Your task to perform on an android device: Go to Wikipedia Image 0: 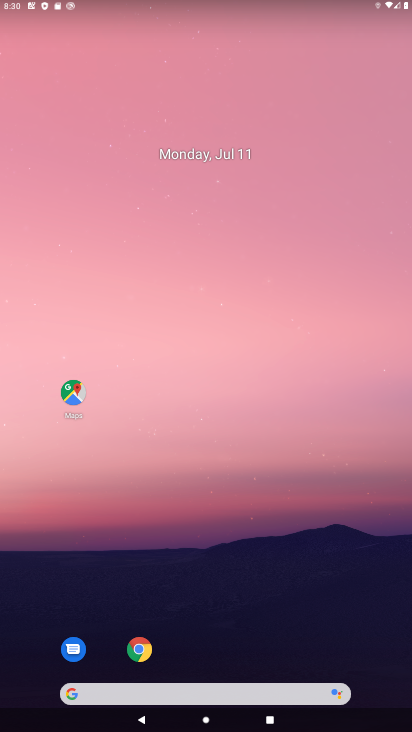
Step 0: drag from (170, 660) to (278, 154)
Your task to perform on an android device: Go to Wikipedia Image 1: 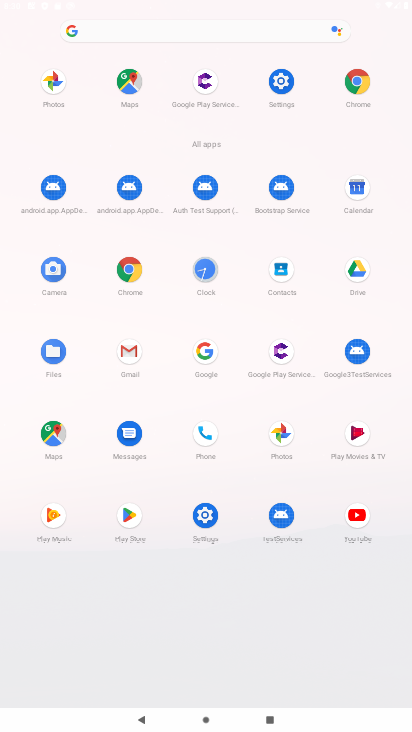
Step 1: click (128, 269)
Your task to perform on an android device: Go to Wikipedia Image 2: 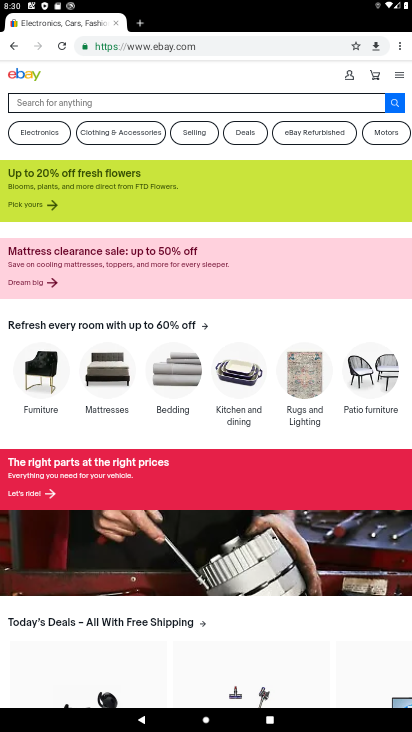
Step 2: drag from (398, 37) to (362, 79)
Your task to perform on an android device: Go to Wikipedia Image 3: 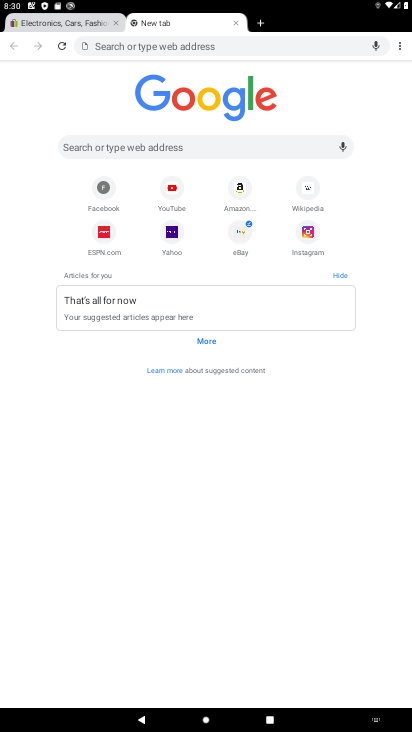
Step 3: click (301, 197)
Your task to perform on an android device: Go to Wikipedia Image 4: 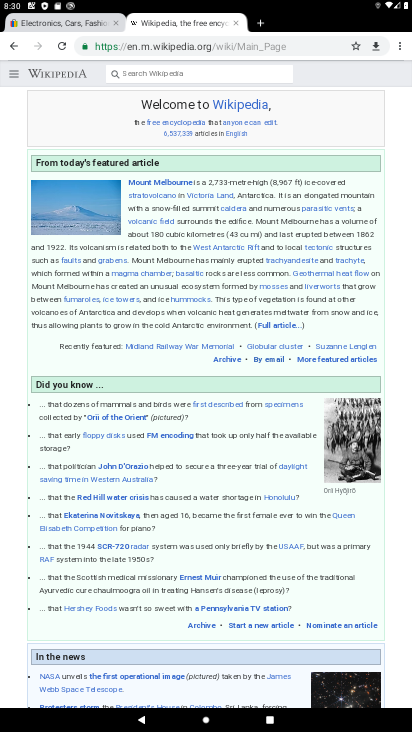
Step 4: task complete